Your task to perform on an android device: turn off data saver in the chrome app Image 0: 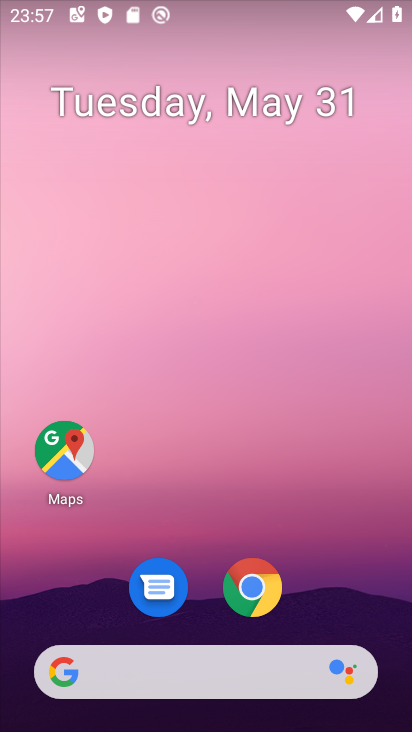
Step 0: click (246, 575)
Your task to perform on an android device: turn off data saver in the chrome app Image 1: 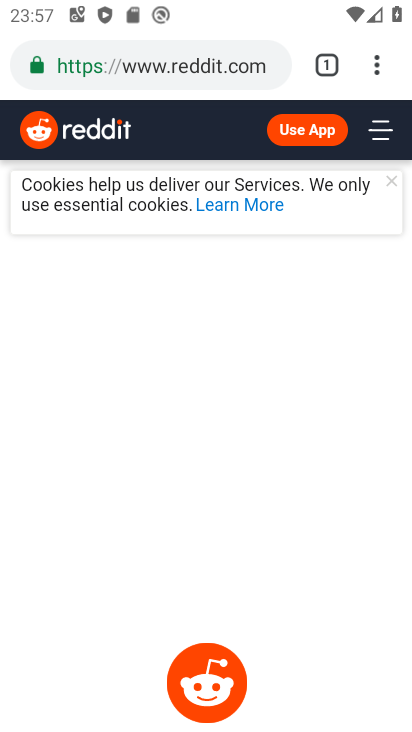
Step 1: click (376, 66)
Your task to perform on an android device: turn off data saver in the chrome app Image 2: 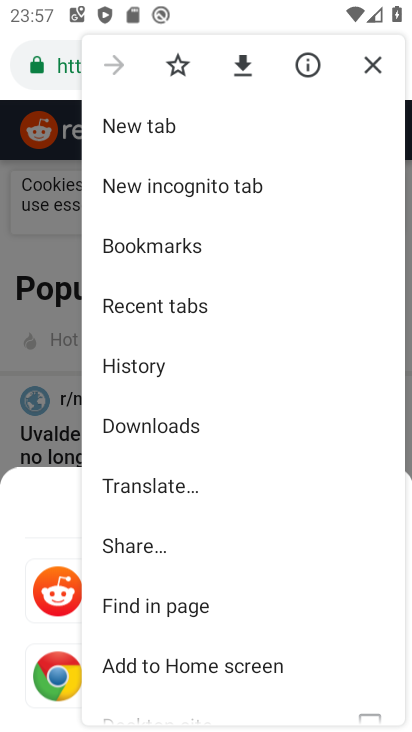
Step 2: drag from (169, 666) to (217, 215)
Your task to perform on an android device: turn off data saver in the chrome app Image 3: 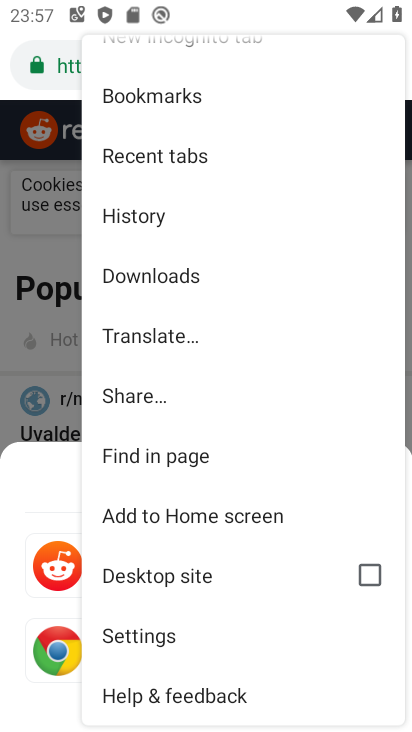
Step 3: click (187, 638)
Your task to perform on an android device: turn off data saver in the chrome app Image 4: 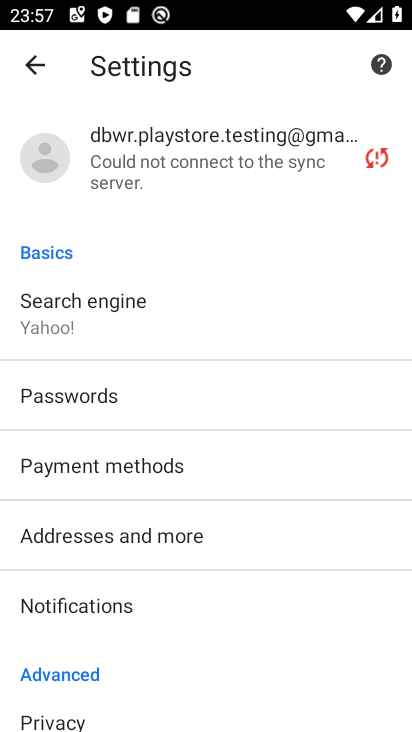
Step 4: drag from (193, 647) to (247, 258)
Your task to perform on an android device: turn off data saver in the chrome app Image 5: 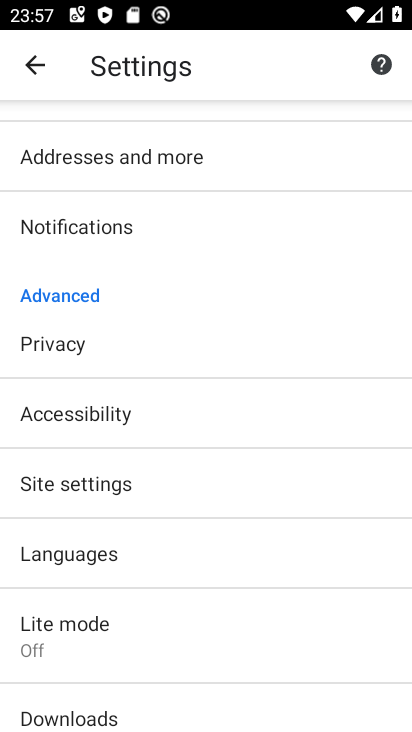
Step 5: click (76, 626)
Your task to perform on an android device: turn off data saver in the chrome app Image 6: 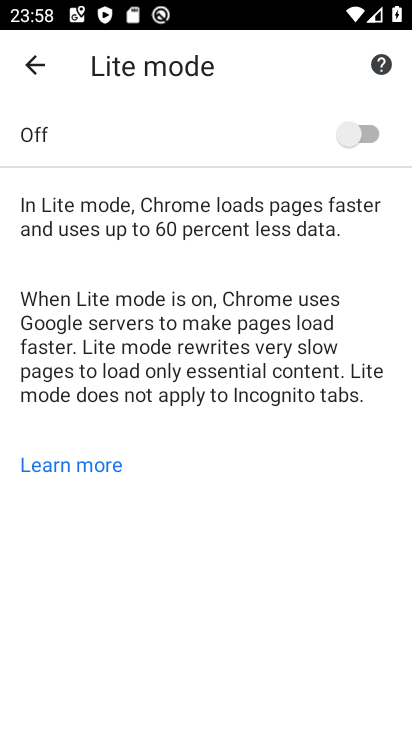
Step 6: task complete